Your task to perform on an android device: Search for seafood restaurants on Google Maps Image 0: 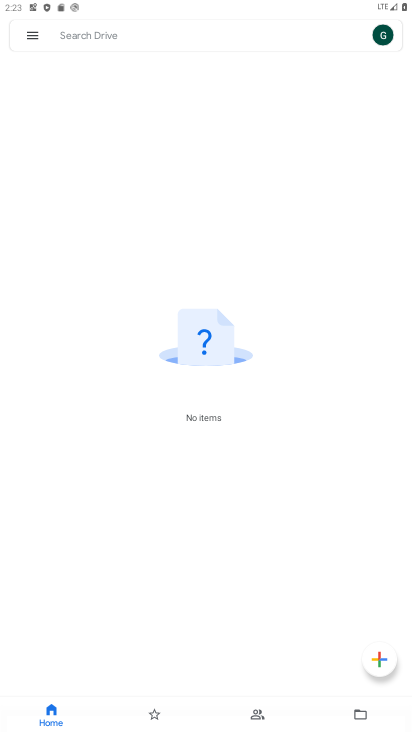
Step 0: press home button
Your task to perform on an android device: Search for seafood restaurants on Google Maps Image 1: 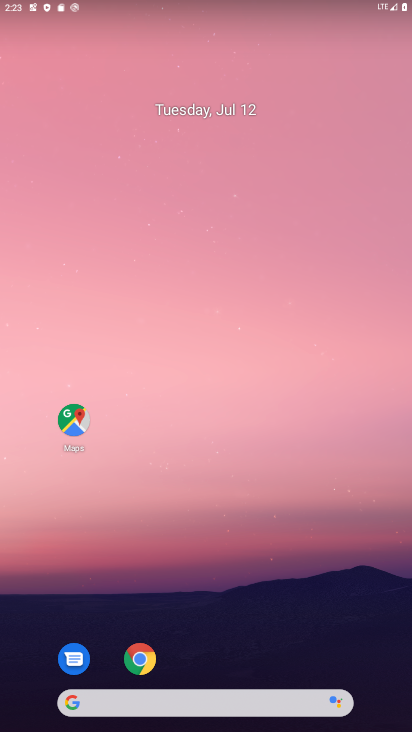
Step 1: drag from (209, 727) to (213, 53)
Your task to perform on an android device: Search for seafood restaurants on Google Maps Image 2: 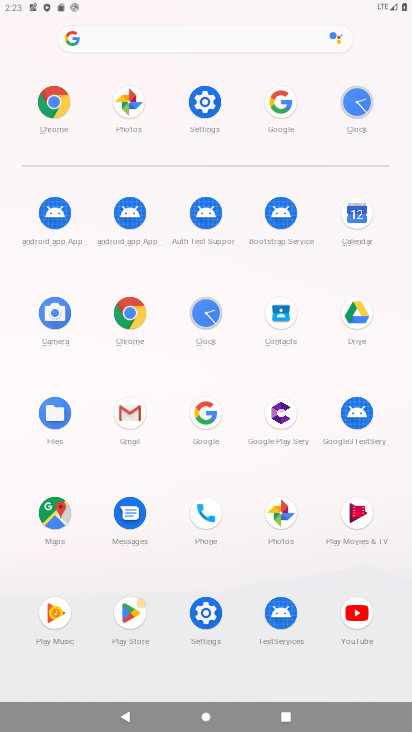
Step 2: click (57, 511)
Your task to perform on an android device: Search for seafood restaurants on Google Maps Image 3: 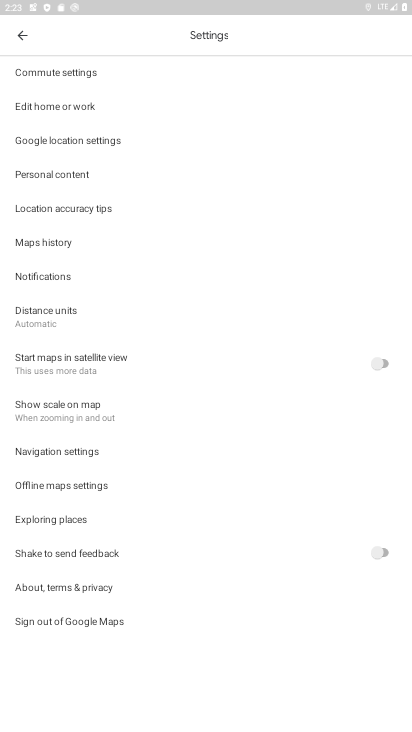
Step 3: click (16, 32)
Your task to perform on an android device: Search for seafood restaurants on Google Maps Image 4: 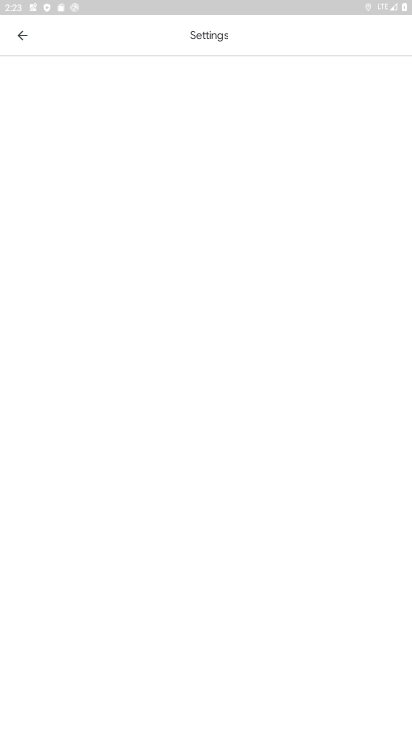
Step 4: click (23, 29)
Your task to perform on an android device: Search for seafood restaurants on Google Maps Image 5: 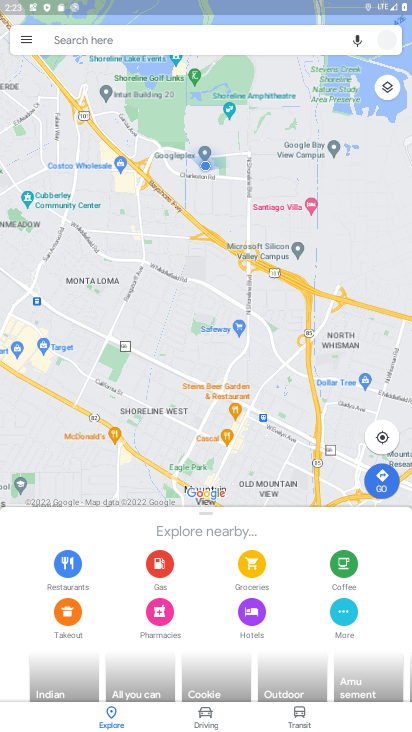
Step 5: click (110, 39)
Your task to perform on an android device: Search for seafood restaurants on Google Maps Image 6: 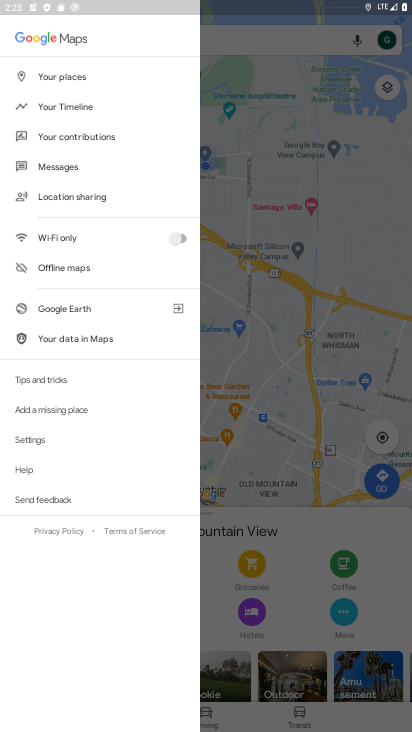
Step 6: click (235, 38)
Your task to perform on an android device: Search for seafood restaurants on Google Maps Image 7: 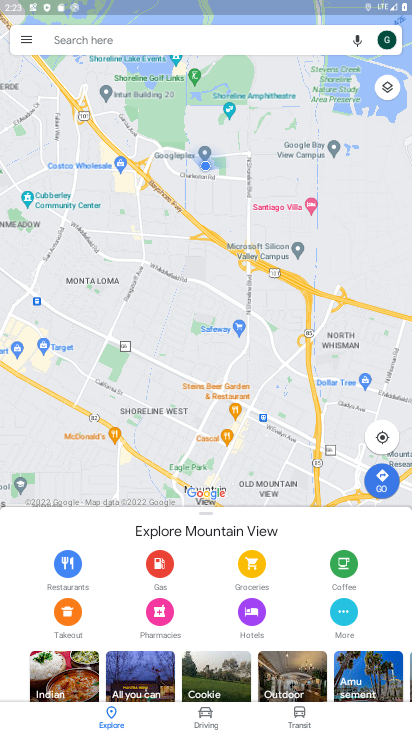
Step 7: click (235, 38)
Your task to perform on an android device: Search for seafood restaurants on Google Maps Image 8: 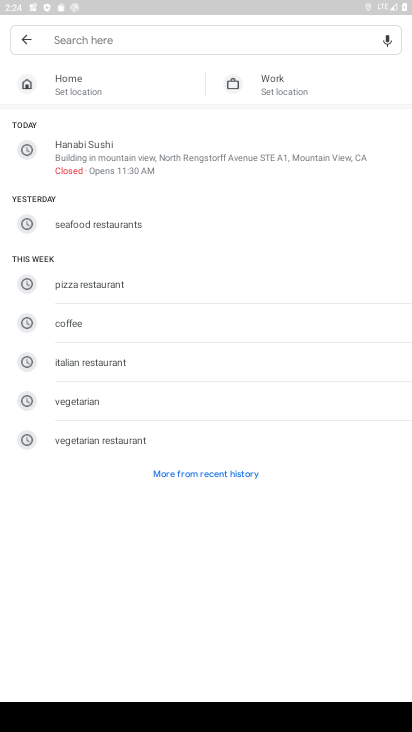
Step 8: type "Seafoood restaurants"
Your task to perform on an android device: Search for seafood restaurants on Google Maps Image 9: 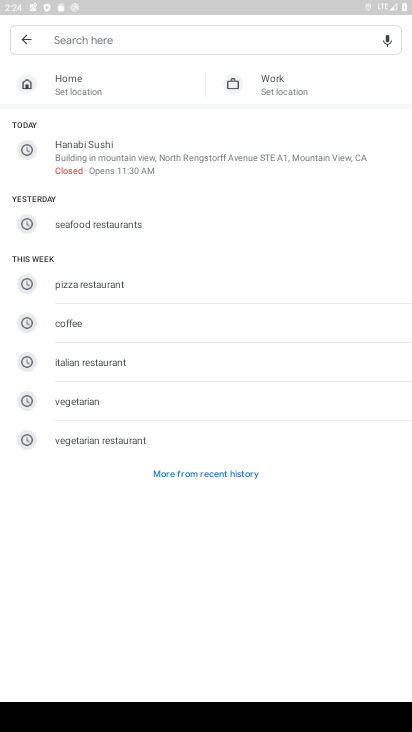
Step 9: click (103, 220)
Your task to perform on an android device: Search for seafood restaurants on Google Maps Image 10: 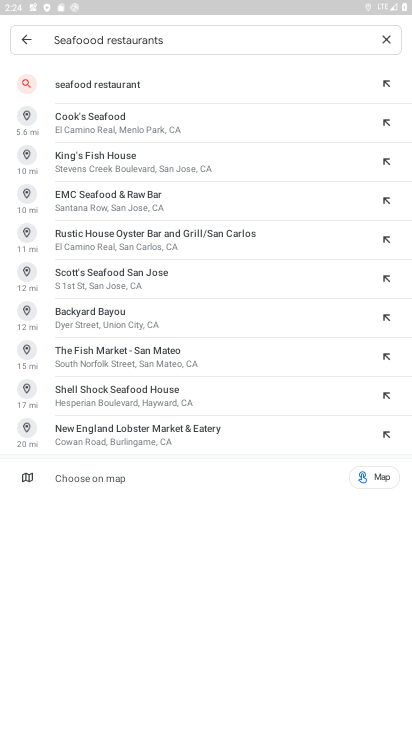
Step 10: click (121, 85)
Your task to perform on an android device: Search for seafood restaurants on Google Maps Image 11: 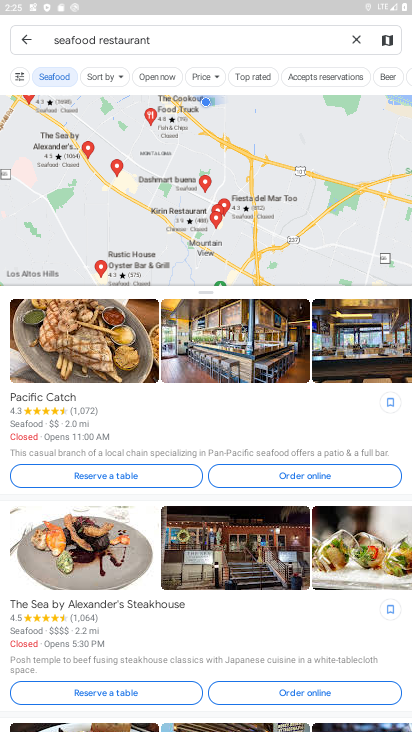
Step 11: task complete